Your task to perform on an android device: turn on the 24-hour format for clock Image 0: 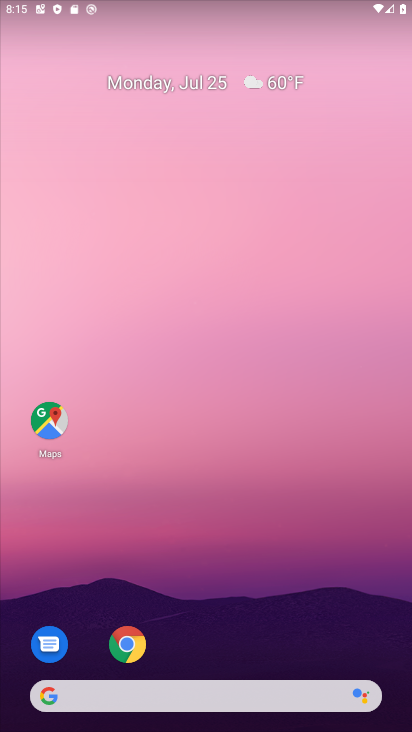
Step 0: drag from (296, 568) to (338, 184)
Your task to perform on an android device: turn on the 24-hour format for clock Image 1: 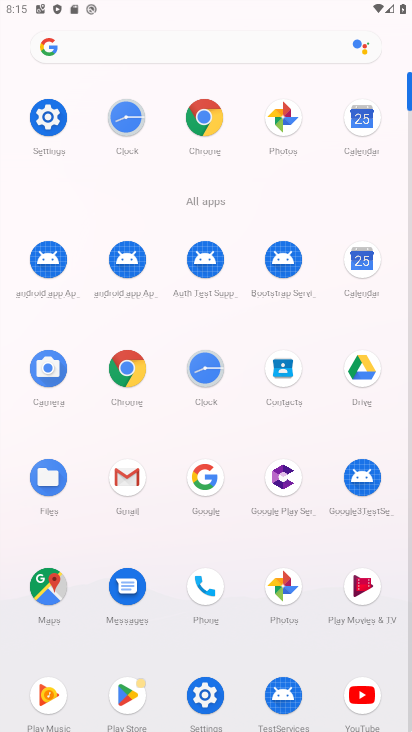
Step 1: click (201, 374)
Your task to perform on an android device: turn on the 24-hour format for clock Image 2: 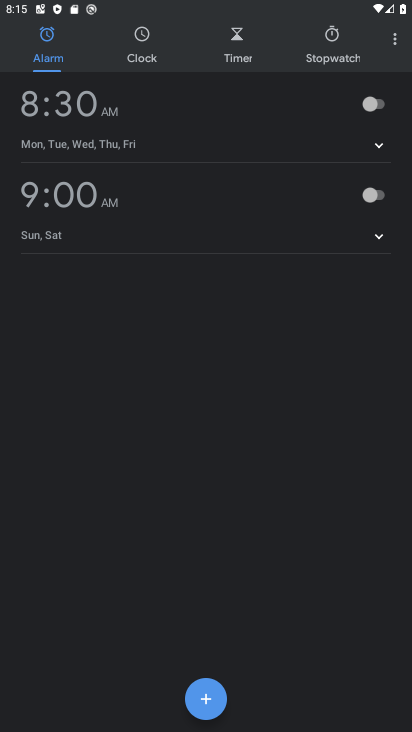
Step 2: click (391, 34)
Your task to perform on an android device: turn on the 24-hour format for clock Image 3: 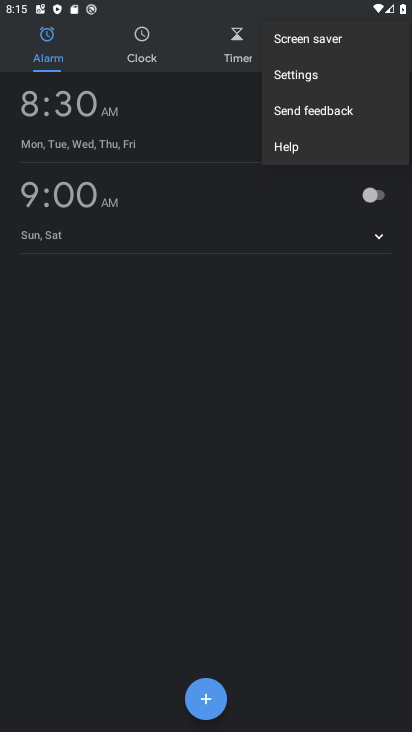
Step 3: click (320, 74)
Your task to perform on an android device: turn on the 24-hour format for clock Image 4: 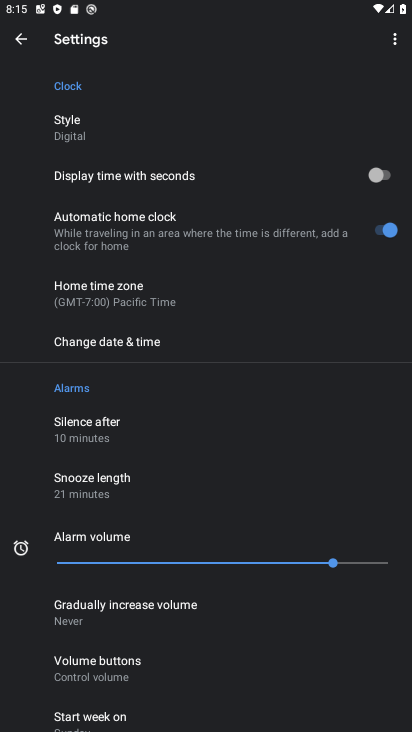
Step 4: task complete